Your task to perform on an android device: Open display settings Image 0: 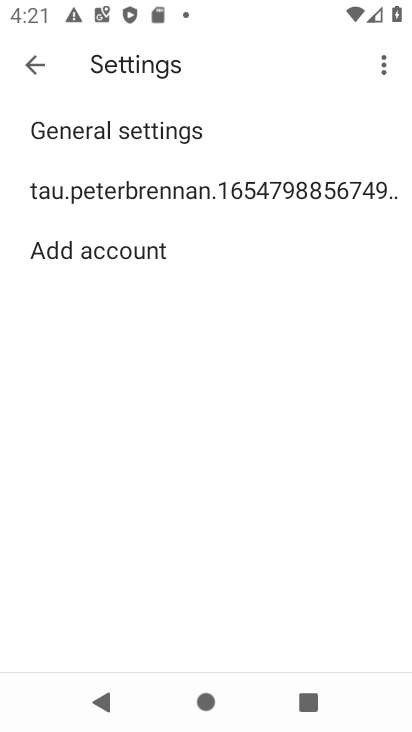
Step 0: press home button
Your task to perform on an android device: Open display settings Image 1: 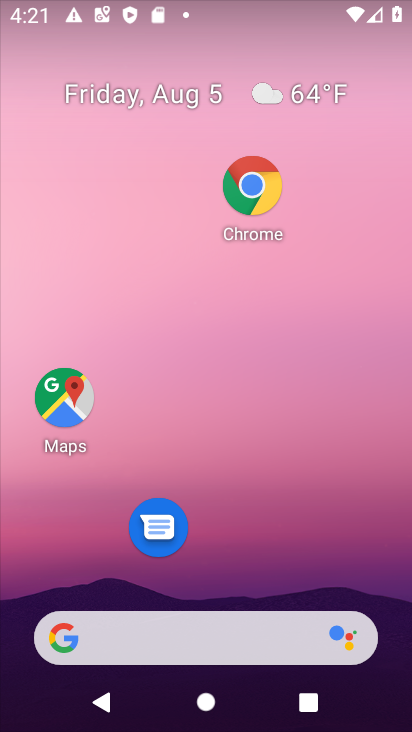
Step 1: drag from (223, 595) to (225, 94)
Your task to perform on an android device: Open display settings Image 2: 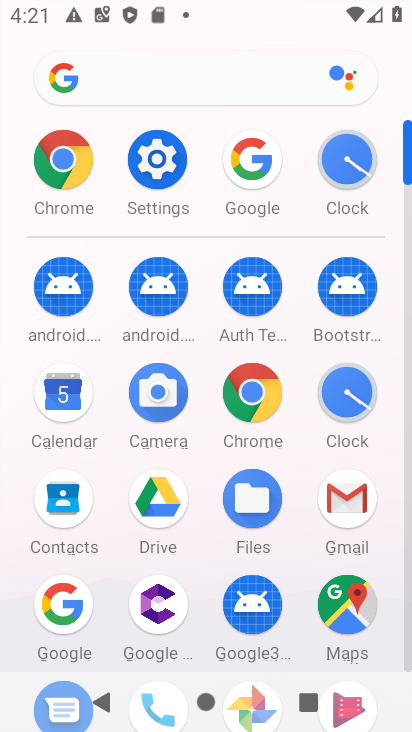
Step 2: click (166, 165)
Your task to perform on an android device: Open display settings Image 3: 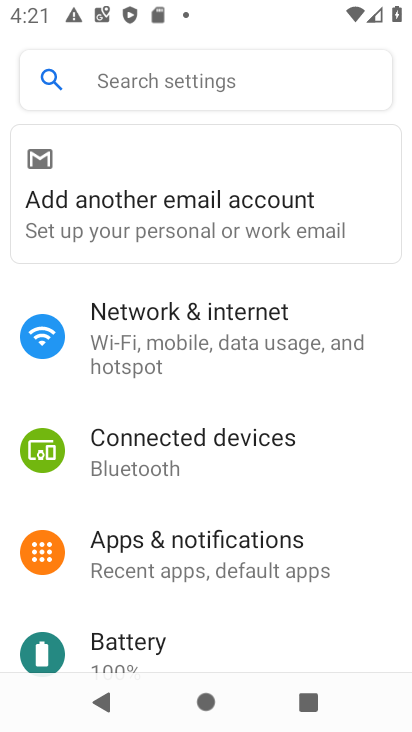
Step 3: drag from (130, 621) to (124, 321)
Your task to perform on an android device: Open display settings Image 4: 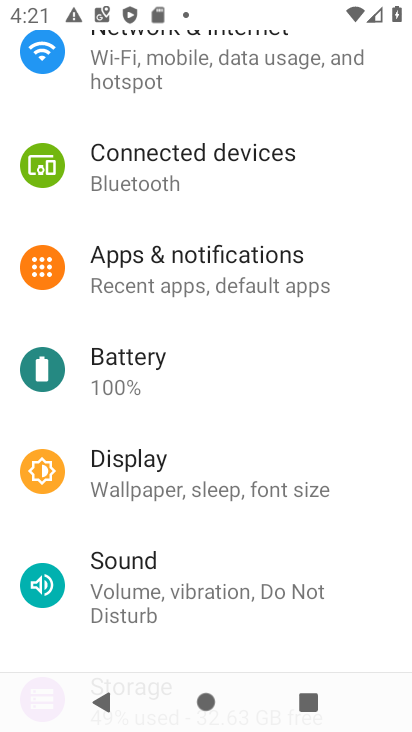
Step 4: drag from (133, 607) to (160, 327)
Your task to perform on an android device: Open display settings Image 5: 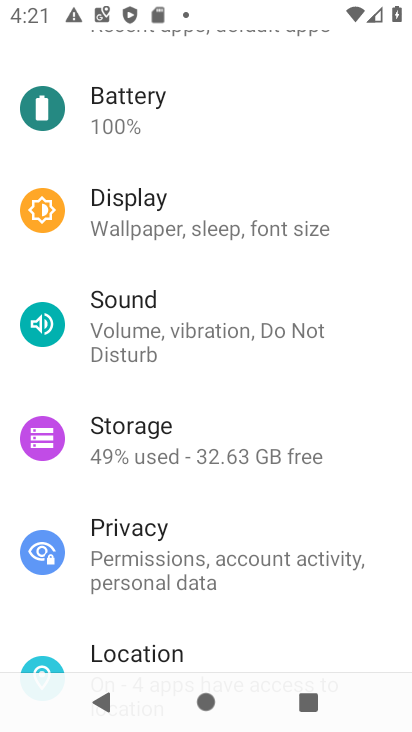
Step 5: drag from (250, 611) to (255, 402)
Your task to perform on an android device: Open display settings Image 6: 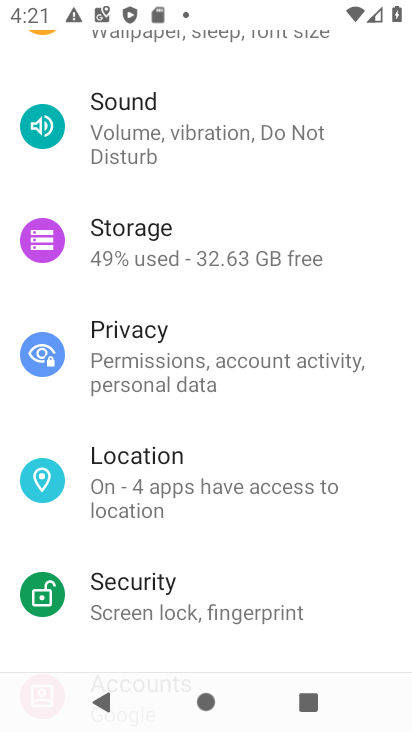
Step 6: drag from (149, 154) to (160, 407)
Your task to perform on an android device: Open display settings Image 7: 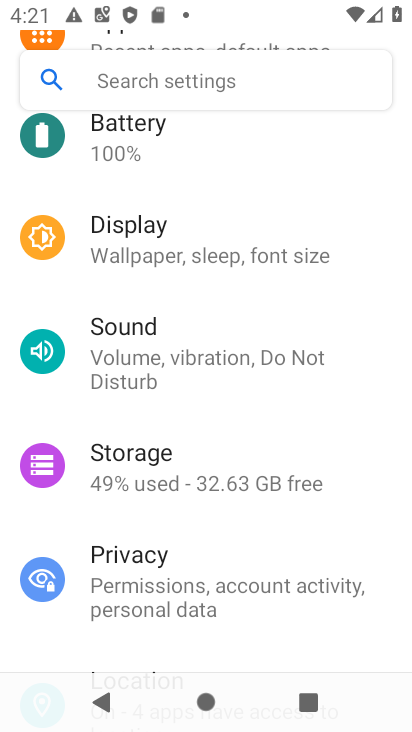
Step 7: click (120, 236)
Your task to perform on an android device: Open display settings Image 8: 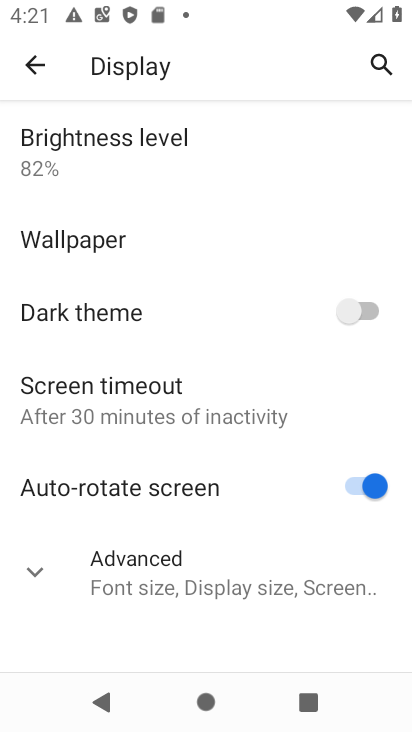
Step 8: task complete